Your task to perform on an android device: open app "Google Find My Device" Image 0: 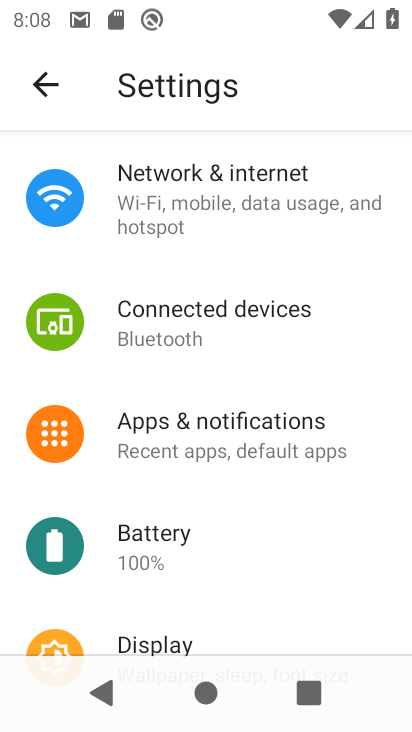
Step 0: press home button
Your task to perform on an android device: open app "Google Find My Device" Image 1: 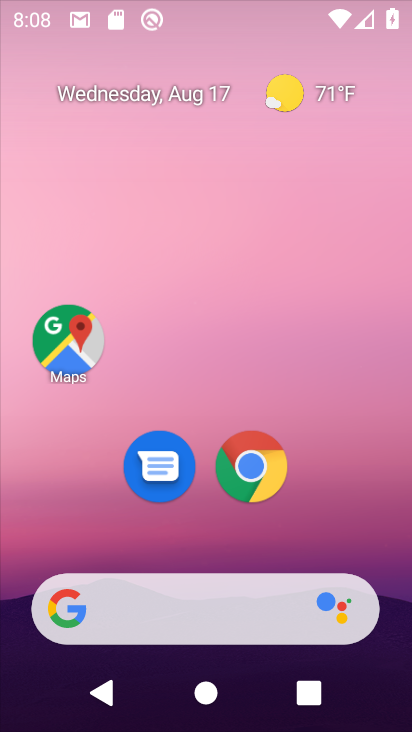
Step 1: drag from (201, 571) to (244, 13)
Your task to perform on an android device: open app "Google Find My Device" Image 2: 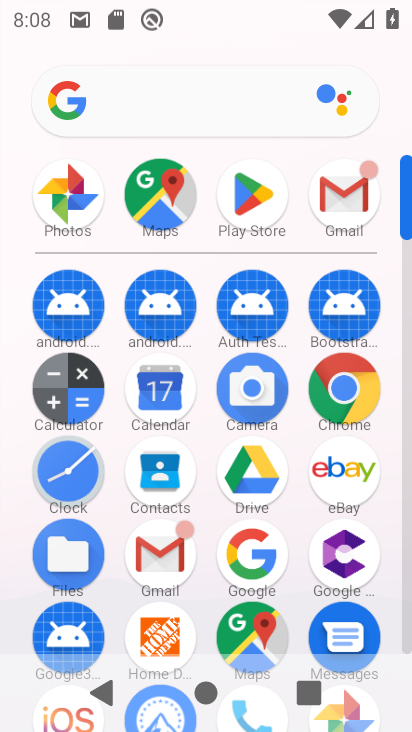
Step 2: click (261, 185)
Your task to perform on an android device: open app "Google Find My Device" Image 3: 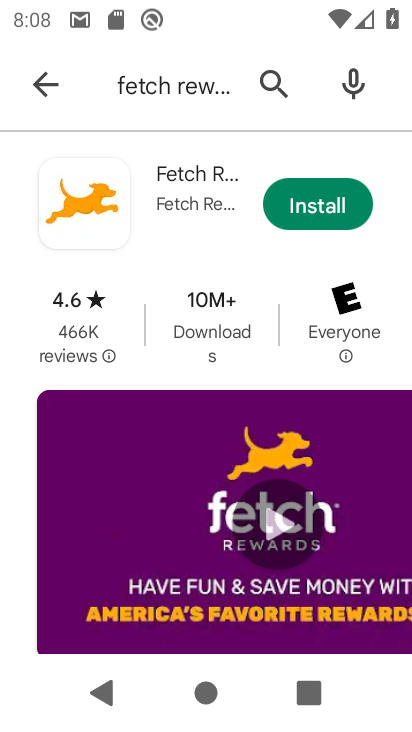
Step 3: click (158, 87)
Your task to perform on an android device: open app "Google Find My Device" Image 4: 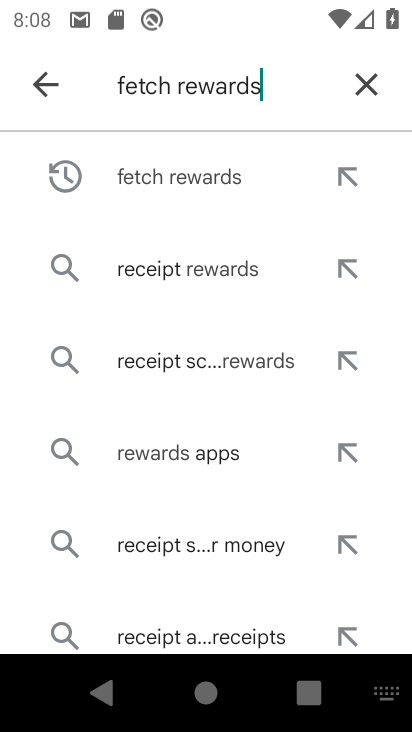
Step 4: click (360, 79)
Your task to perform on an android device: open app "Google Find My Device" Image 5: 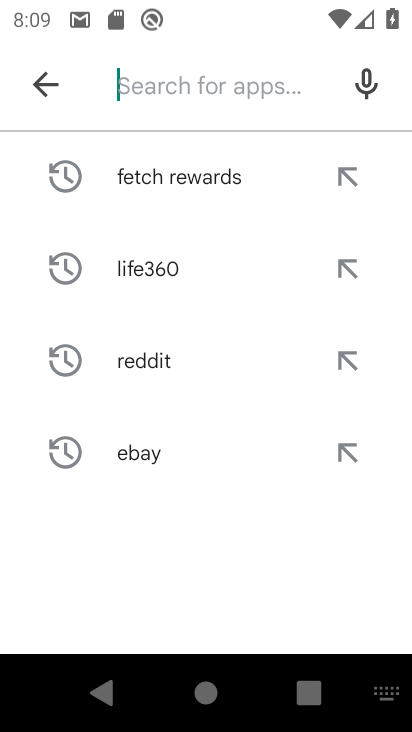
Step 5: type "google find my device"
Your task to perform on an android device: open app "Google Find My Device" Image 6: 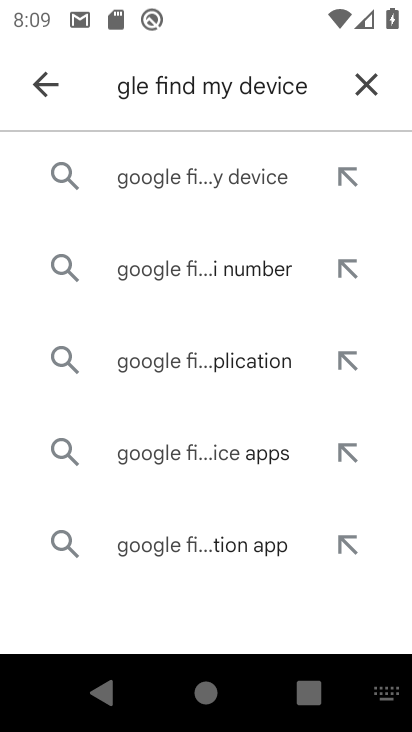
Step 6: click (201, 181)
Your task to perform on an android device: open app "Google Find My Device" Image 7: 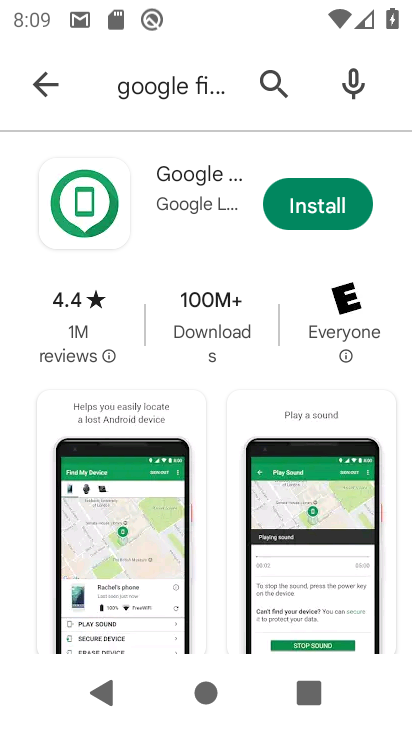
Step 7: task complete